Your task to perform on an android device: turn off wifi Image 0: 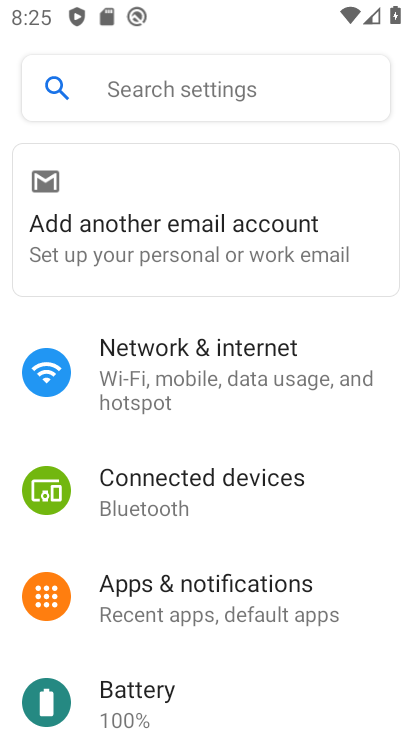
Step 0: press home button
Your task to perform on an android device: turn off wifi Image 1: 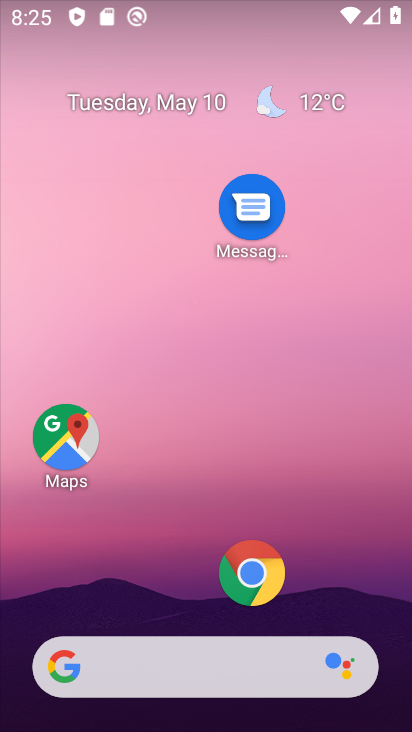
Step 1: drag from (182, 580) to (238, 92)
Your task to perform on an android device: turn off wifi Image 2: 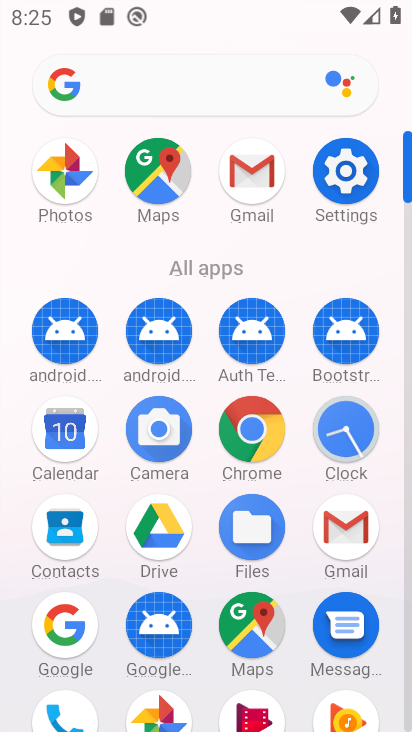
Step 2: click (347, 171)
Your task to perform on an android device: turn off wifi Image 3: 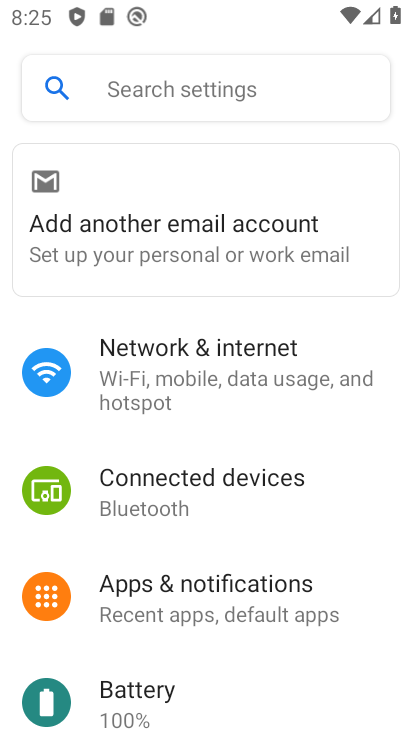
Step 3: click (209, 368)
Your task to perform on an android device: turn off wifi Image 4: 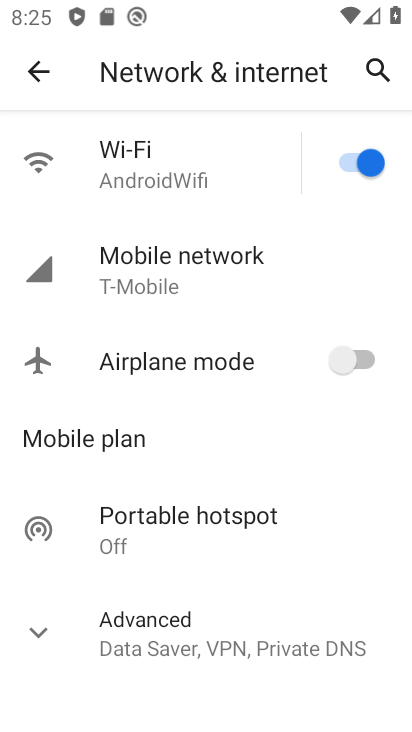
Step 4: click (368, 162)
Your task to perform on an android device: turn off wifi Image 5: 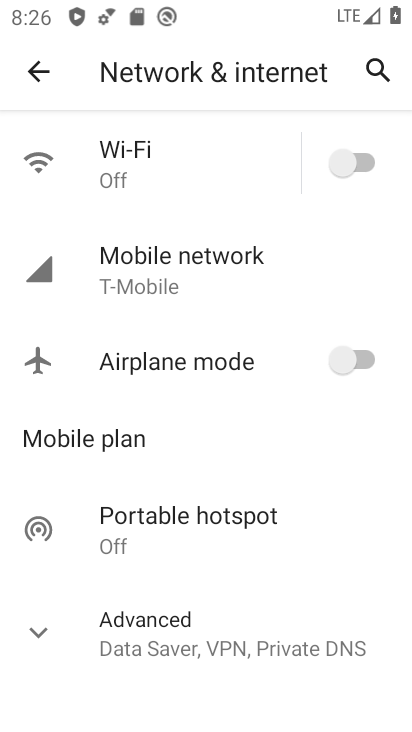
Step 5: task complete